Your task to perform on an android device: open app "Skype" (install if not already installed) Image 0: 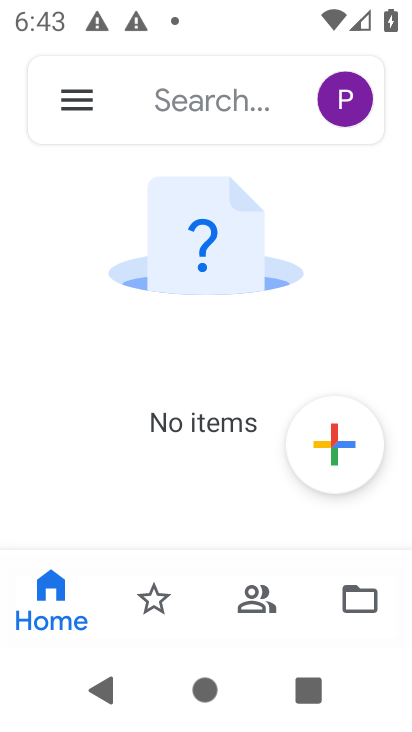
Step 0: press home button
Your task to perform on an android device: open app "Skype" (install if not already installed) Image 1: 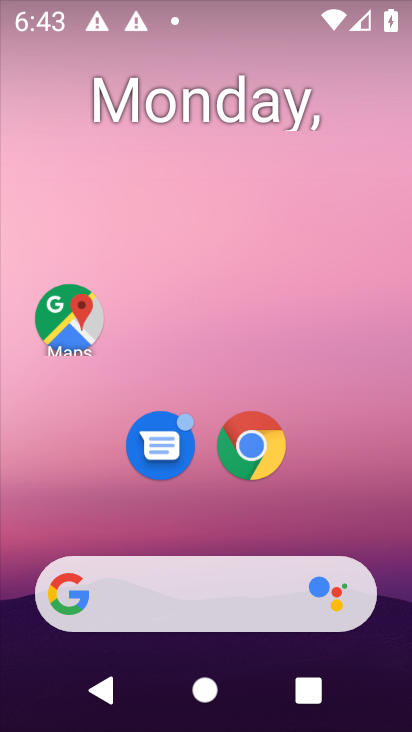
Step 1: drag from (396, 608) to (318, 160)
Your task to perform on an android device: open app "Skype" (install if not already installed) Image 2: 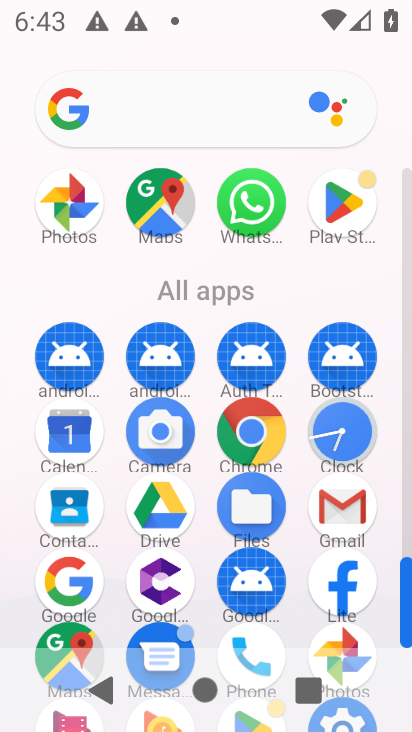
Step 2: click (345, 197)
Your task to perform on an android device: open app "Skype" (install if not already installed) Image 3: 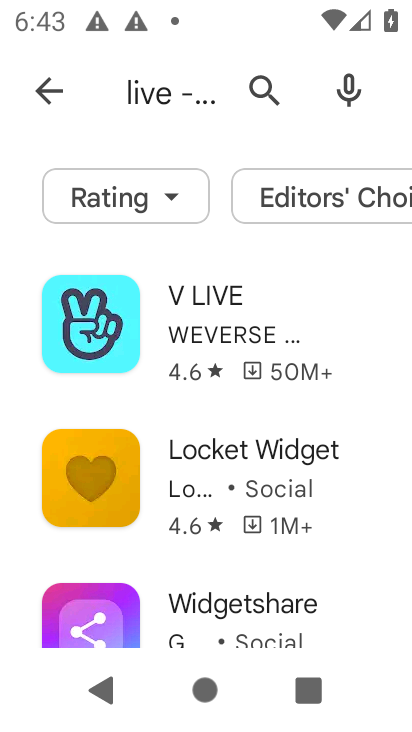
Step 3: press back button
Your task to perform on an android device: open app "Skype" (install if not already installed) Image 4: 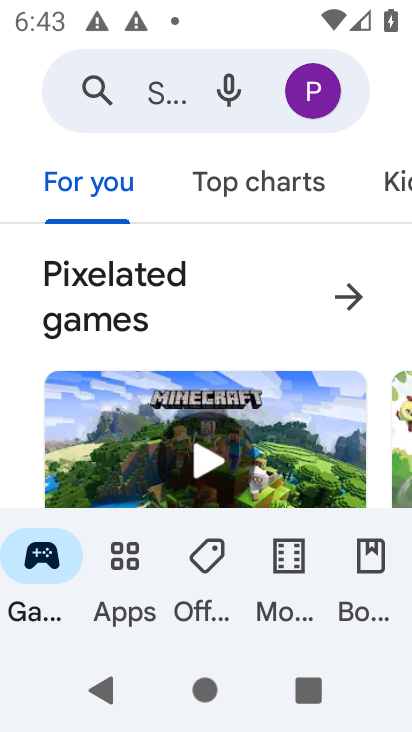
Step 4: click (163, 77)
Your task to perform on an android device: open app "Skype" (install if not already installed) Image 5: 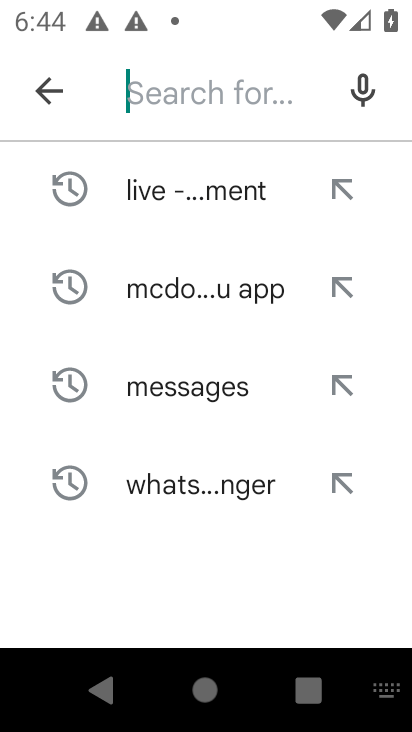
Step 5: type "Skype"
Your task to perform on an android device: open app "Skype" (install if not already installed) Image 6: 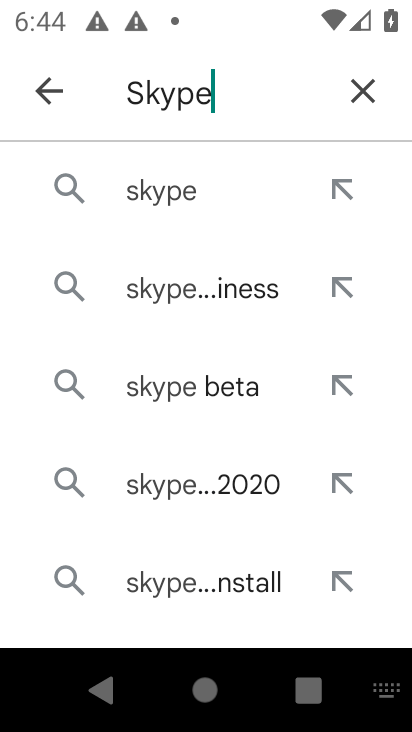
Step 6: click (141, 191)
Your task to perform on an android device: open app "Skype" (install if not already installed) Image 7: 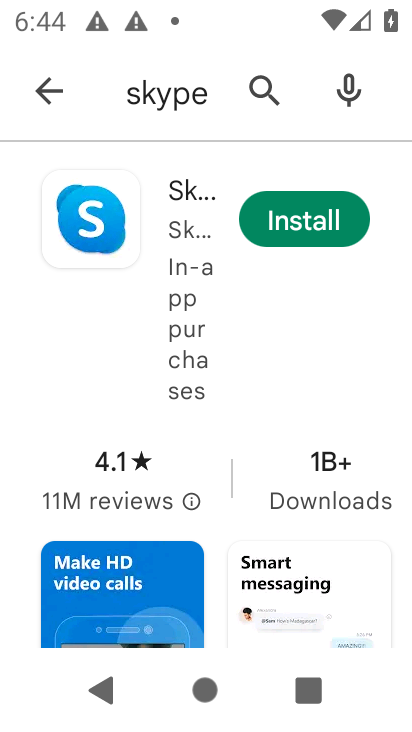
Step 7: task complete